Your task to perform on an android device: allow cookies in the chrome app Image 0: 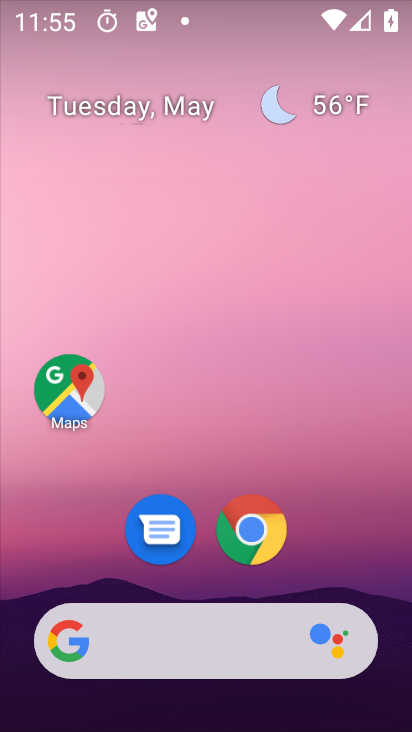
Step 0: click (262, 515)
Your task to perform on an android device: allow cookies in the chrome app Image 1: 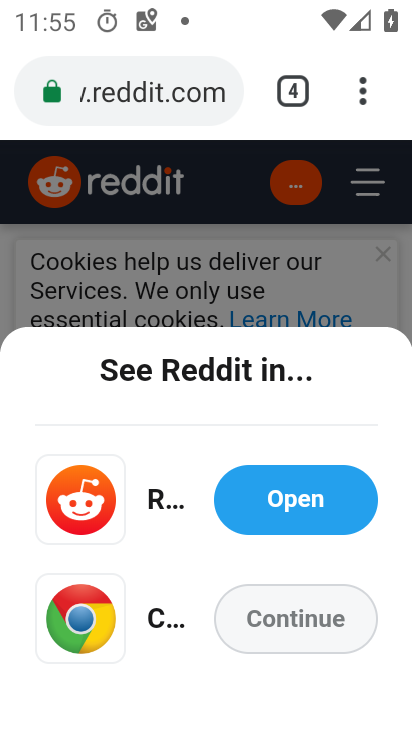
Step 1: click (381, 93)
Your task to perform on an android device: allow cookies in the chrome app Image 2: 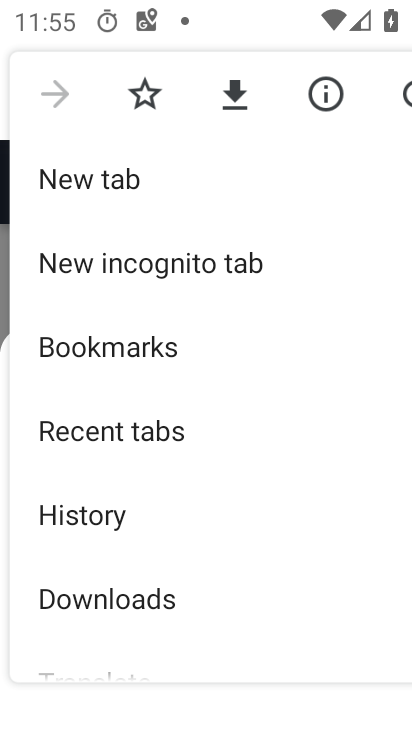
Step 2: drag from (239, 541) to (392, 24)
Your task to perform on an android device: allow cookies in the chrome app Image 3: 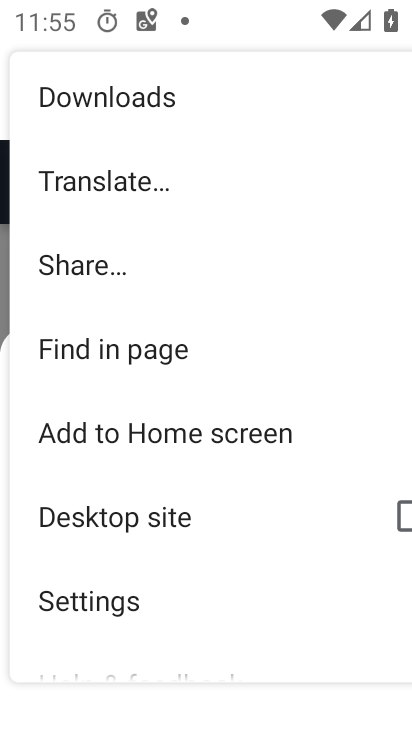
Step 3: click (119, 597)
Your task to perform on an android device: allow cookies in the chrome app Image 4: 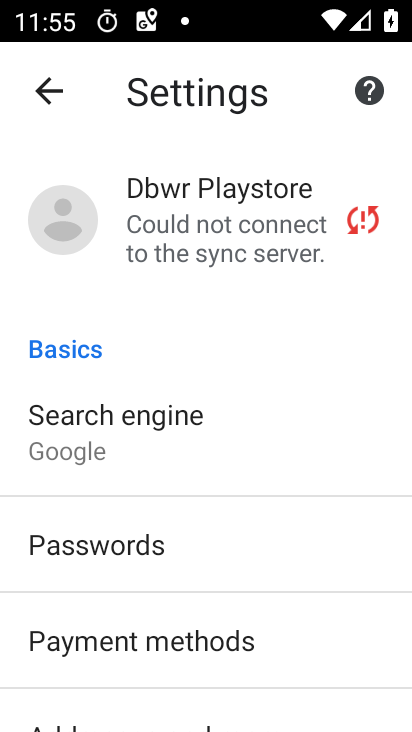
Step 4: drag from (65, 696) to (181, 303)
Your task to perform on an android device: allow cookies in the chrome app Image 5: 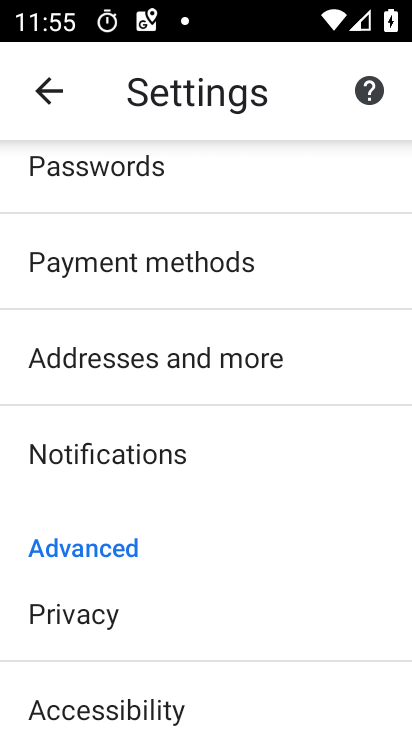
Step 5: drag from (101, 620) to (211, 281)
Your task to perform on an android device: allow cookies in the chrome app Image 6: 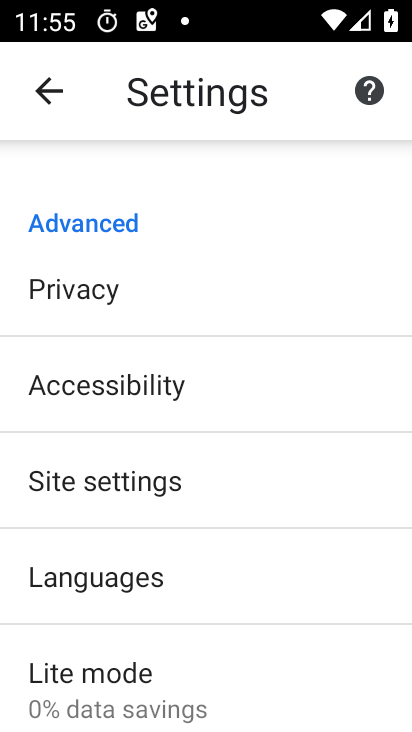
Step 6: drag from (157, 570) to (278, 324)
Your task to perform on an android device: allow cookies in the chrome app Image 7: 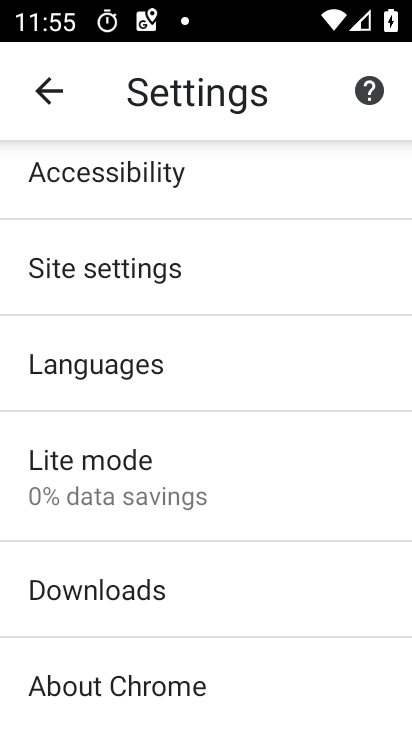
Step 7: click (201, 263)
Your task to perform on an android device: allow cookies in the chrome app Image 8: 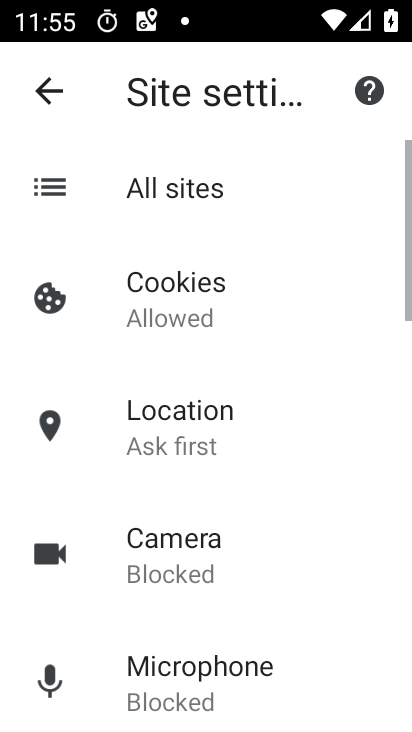
Step 8: click (206, 272)
Your task to perform on an android device: allow cookies in the chrome app Image 9: 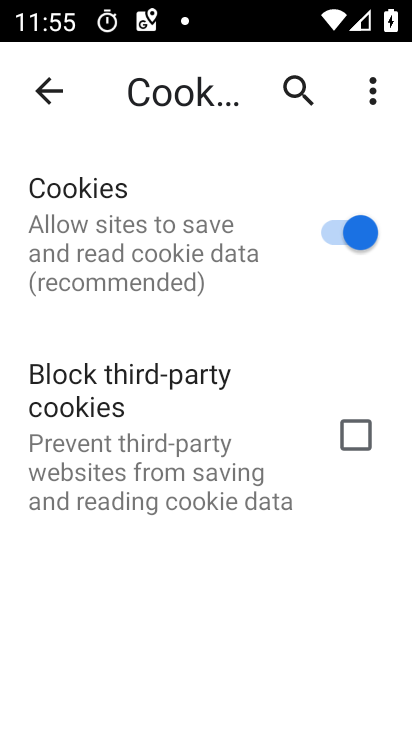
Step 9: task complete